Your task to perform on an android device: open device folders in google photos Image 0: 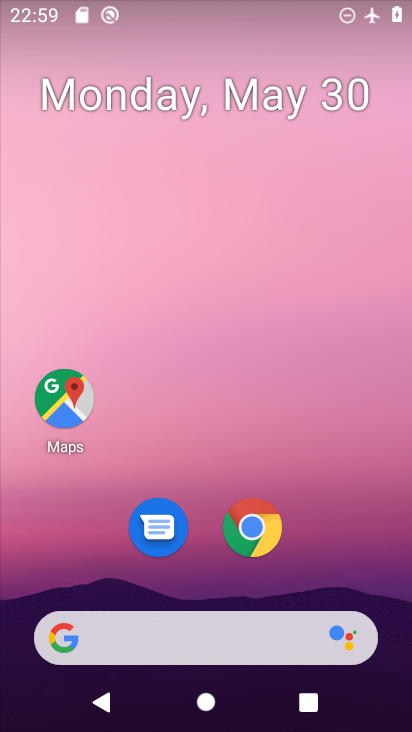
Step 0: drag from (223, 579) to (211, 306)
Your task to perform on an android device: open device folders in google photos Image 1: 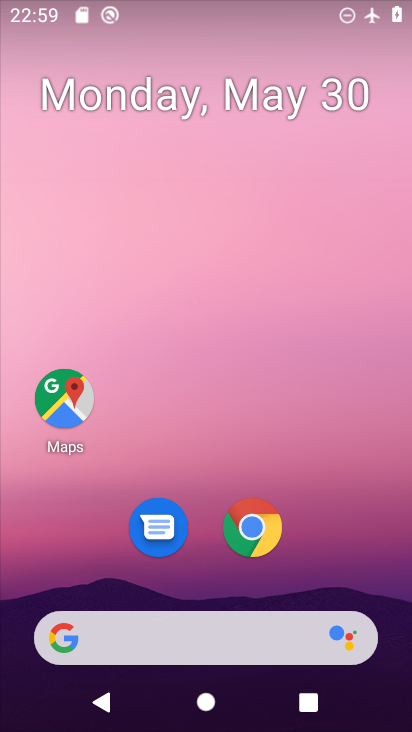
Step 1: drag from (228, 596) to (215, 176)
Your task to perform on an android device: open device folders in google photos Image 2: 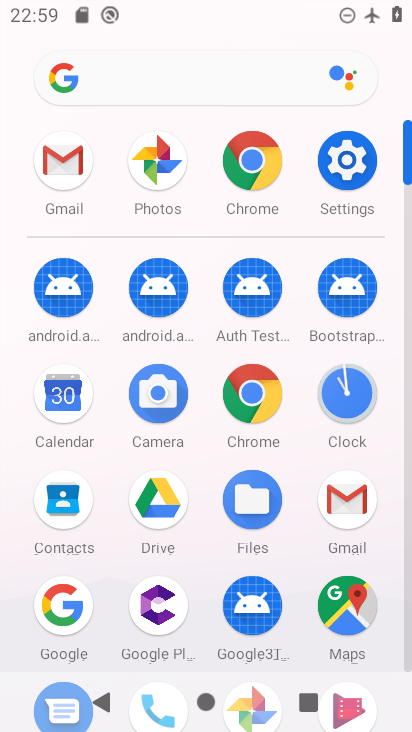
Step 2: drag from (217, 612) to (315, 420)
Your task to perform on an android device: open device folders in google photos Image 3: 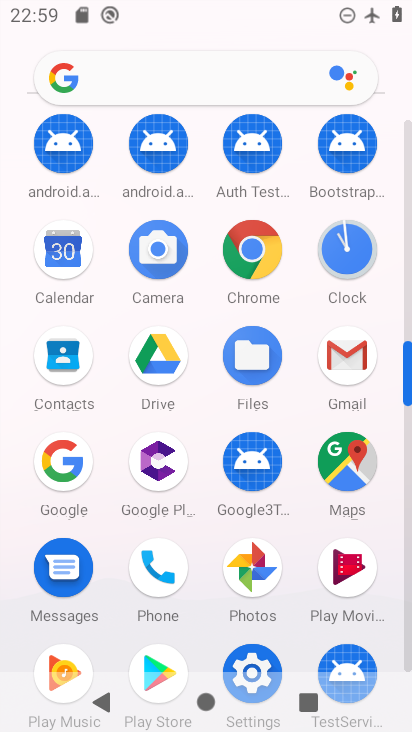
Step 3: drag from (294, 588) to (315, 357)
Your task to perform on an android device: open device folders in google photos Image 4: 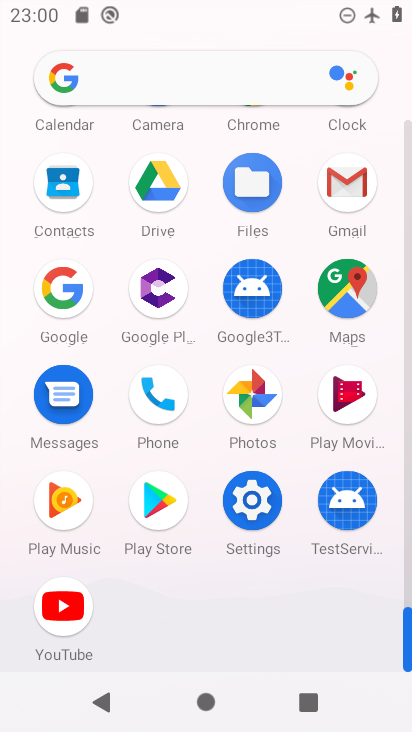
Step 4: click (248, 384)
Your task to perform on an android device: open device folders in google photos Image 5: 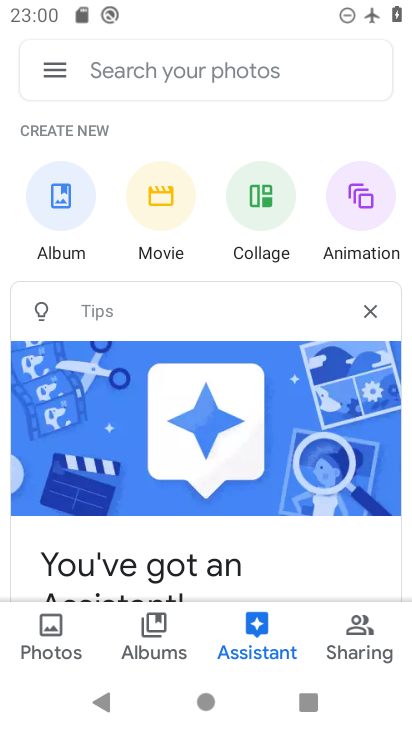
Step 5: click (48, 60)
Your task to perform on an android device: open device folders in google photos Image 6: 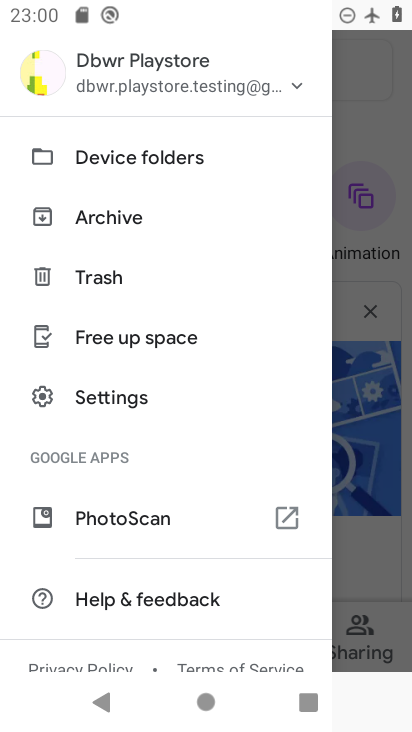
Step 6: click (345, 303)
Your task to perform on an android device: open device folders in google photos Image 7: 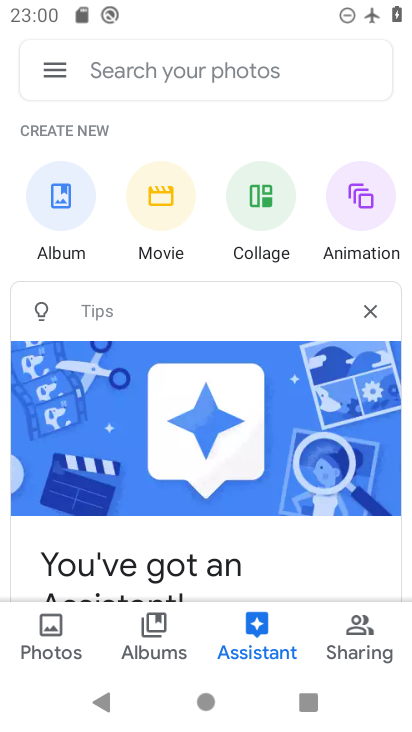
Step 7: click (155, 635)
Your task to perform on an android device: open device folders in google photos Image 8: 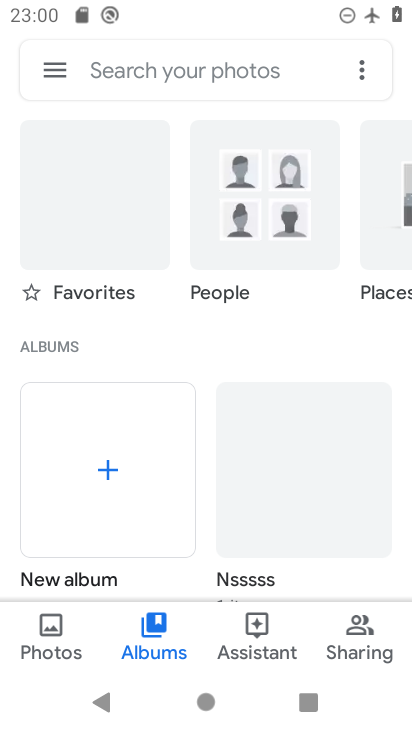
Step 8: click (50, 638)
Your task to perform on an android device: open device folders in google photos Image 9: 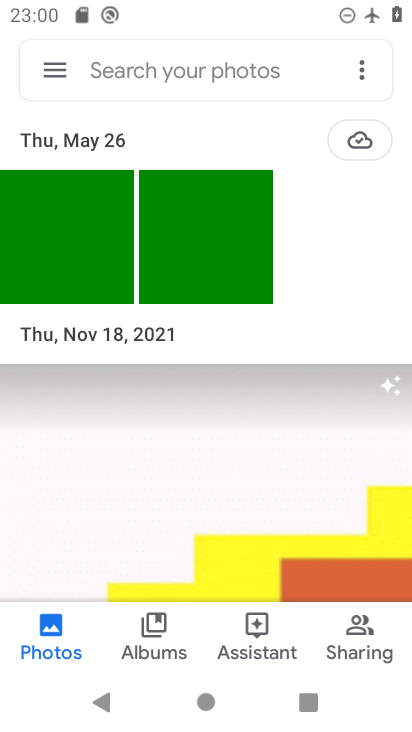
Step 9: task complete